Your task to perform on an android device: Do I have any events tomorrow? Image 0: 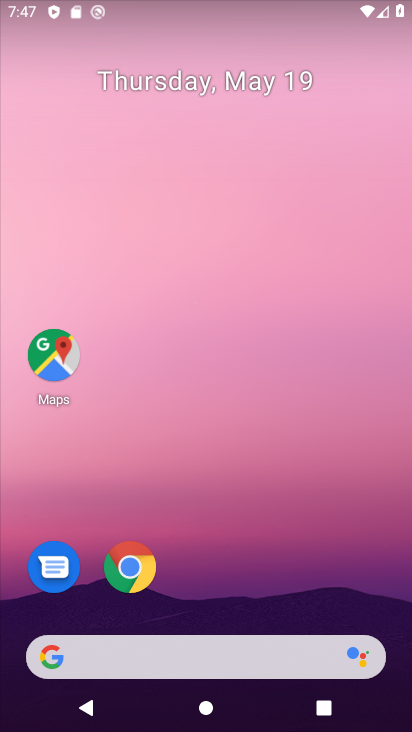
Step 0: drag from (217, 608) to (199, 102)
Your task to perform on an android device: Do I have any events tomorrow? Image 1: 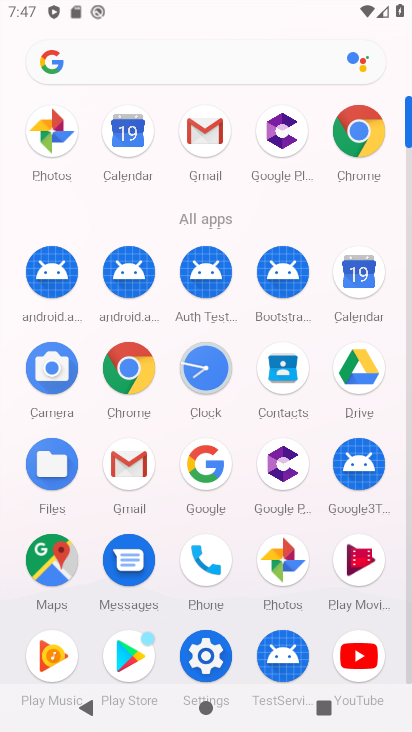
Step 1: drag from (164, 557) to (148, 360)
Your task to perform on an android device: Do I have any events tomorrow? Image 2: 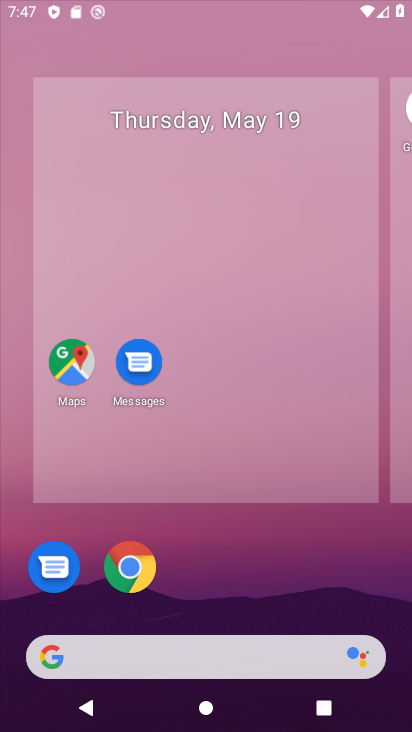
Step 2: click (184, 105)
Your task to perform on an android device: Do I have any events tomorrow? Image 3: 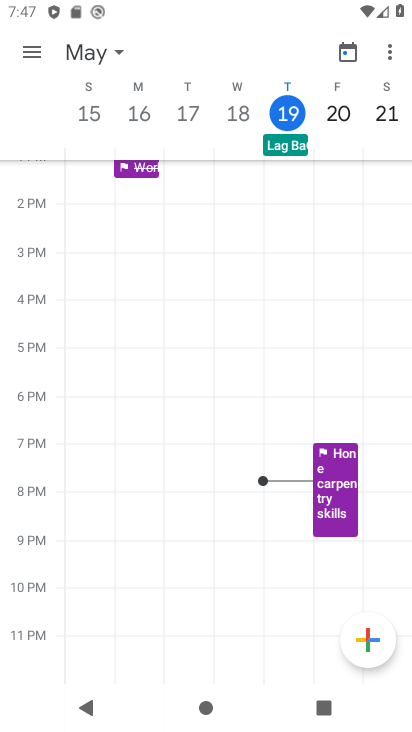
Step 3: click (323, 114)
Your task to perform on an android device: Do I have any events tomorrow? Image 4: 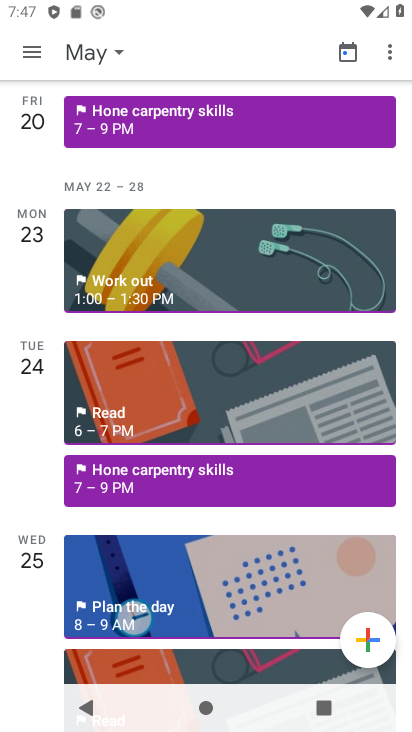
Step 4: task complete